Your task to perform on an android device: Go to Google maps Image 0: 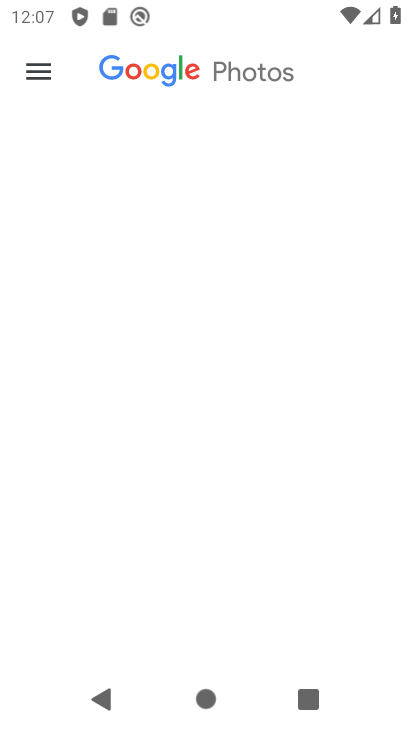
Step 0: click (51, 378)
Your task to perform on an android device: Go to Google maps Image 1: 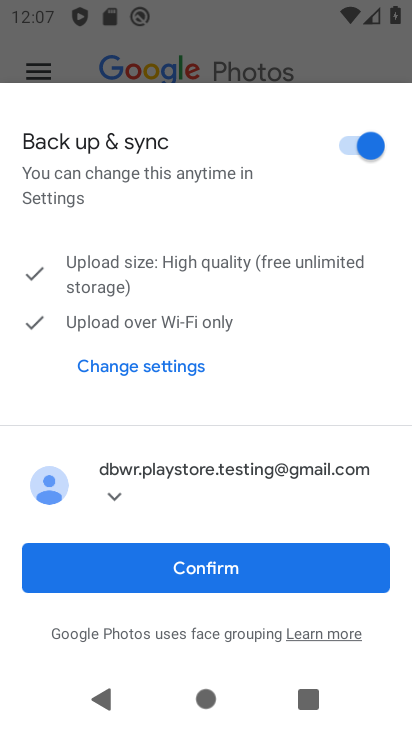
Step 1: press home button
Your task to perform on an android device: Go to Google maps Image 2: 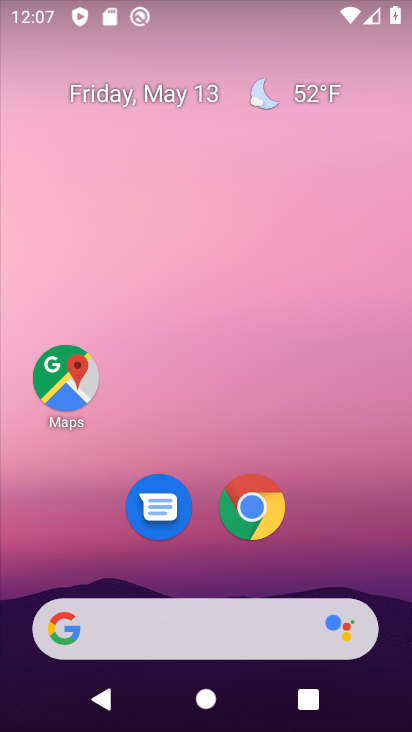
Step 2: click (78, 377)
Your task to perform on an android device: Go to Google maps Image 3: 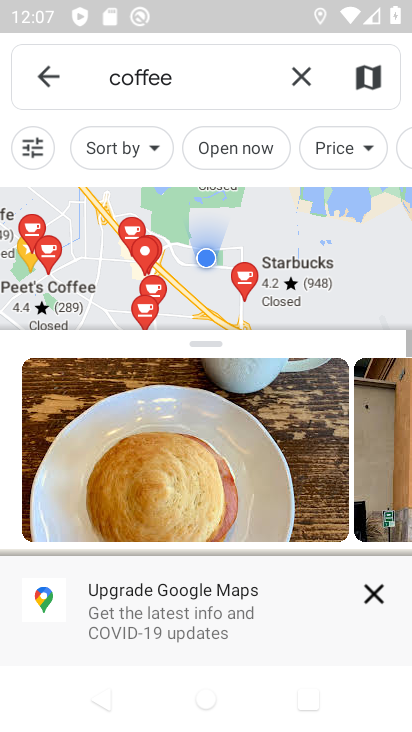
Step 3: click (374, 597)
Your task to perform on an android device: Go to Google maps Image 4: 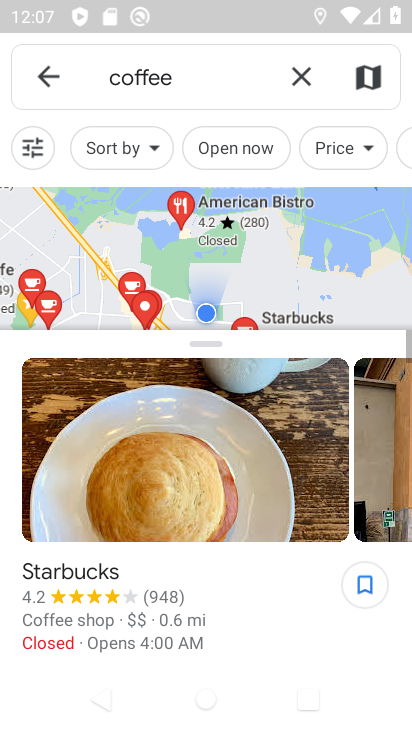
Step 4: click (295, 81)
Your task to perform on an android device: Go to Google maps Image 5: 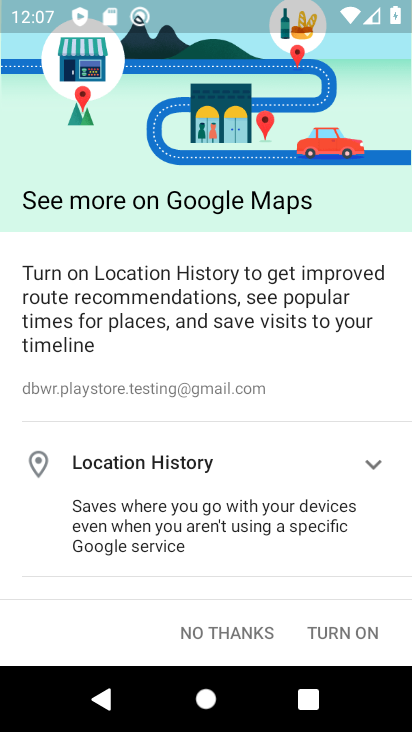
Step 5: click (356, 634)
Your task to perform on an android device: Go to Google maps Image 6: 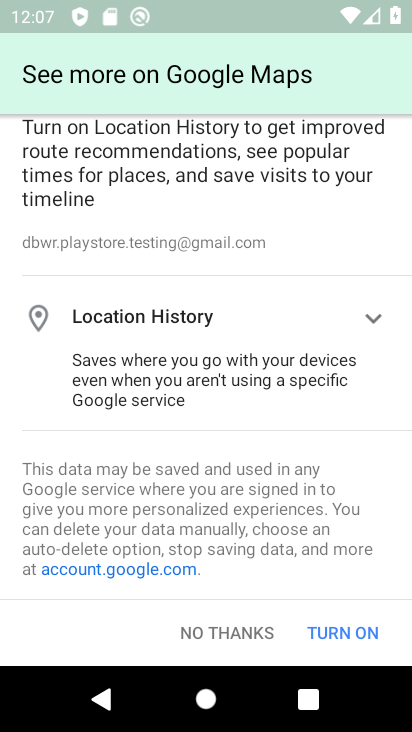
Step 6: click (351, 627)
Your task to perform on an android device: Go to Google maps Image 7: 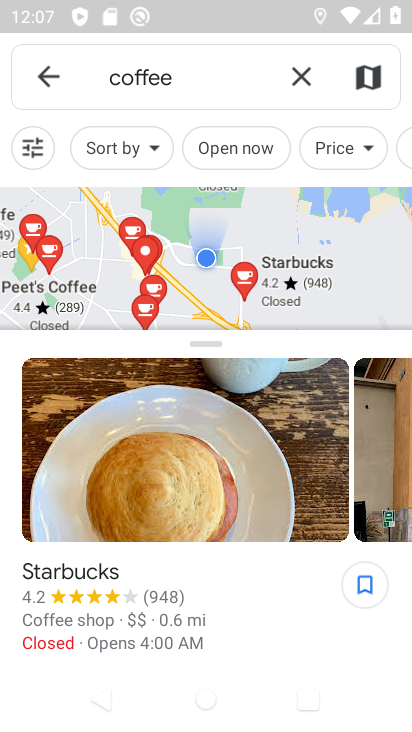
Step 7: click (296, 81)
Your task to perform on an android device: Go to Google maps Image 8: 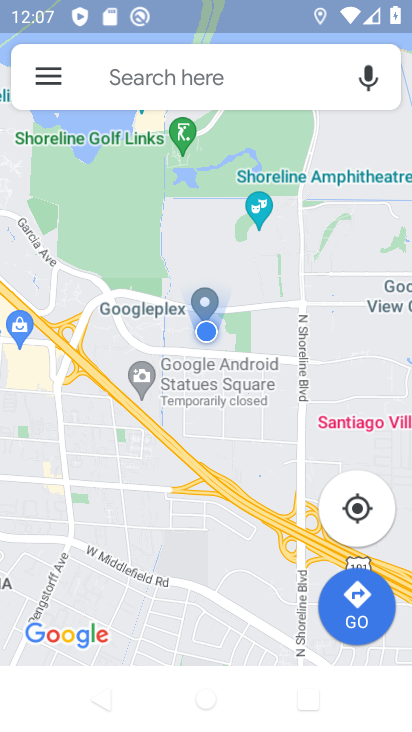
Step 8: task complete